Your task to perform on an android device: Is it going to rain tomorrow? Image 0: 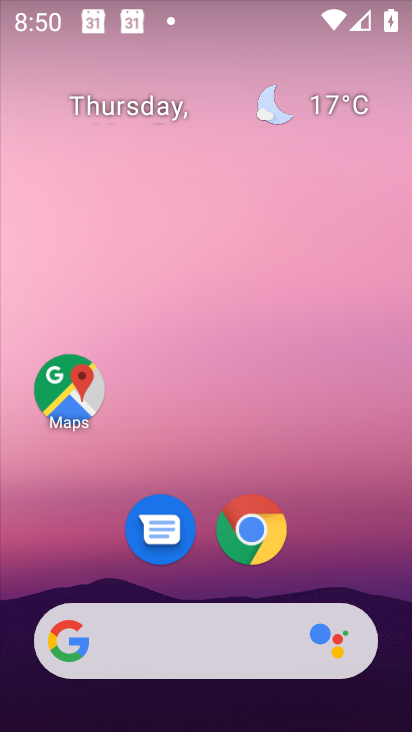
Step 0: click (303, 102)
Your task to perform on an android device: Is it going to rain tomorrow? Image 1: 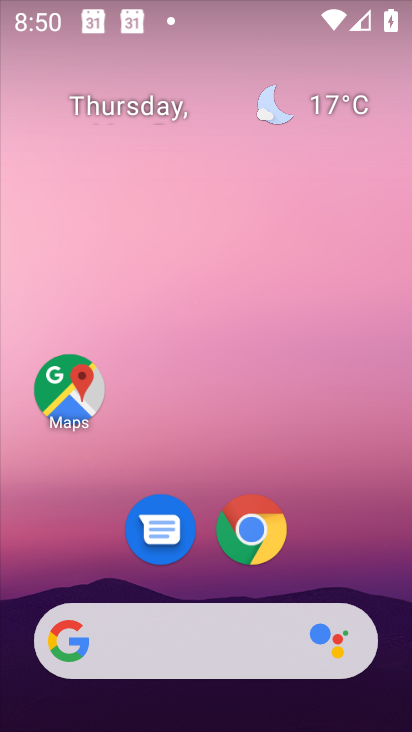
Step 1: click (268, 102)
Your task to perform on an android device: Is it going to rain tomorrow? Image 2: 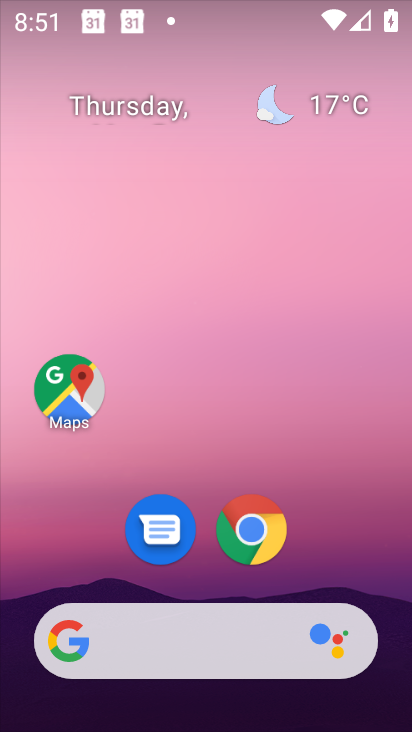
Step 2: click (340, 98)
Your task to perform on an android device: Is it going to rain tomorrow? Image 3: 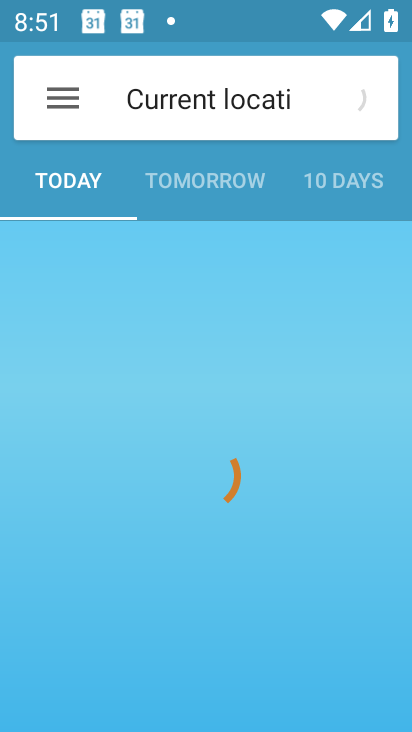
Step 3: click (329, 98)
Your task to perform on an android device: Is it going to rain tomorrow? Image 4: 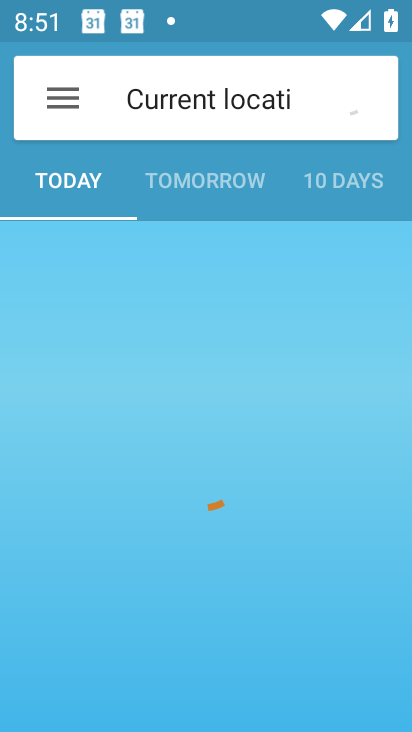
Step 4: click (329, 98)
Your task to perform on an android device: Is it going to rain tomorrow? Image 5: 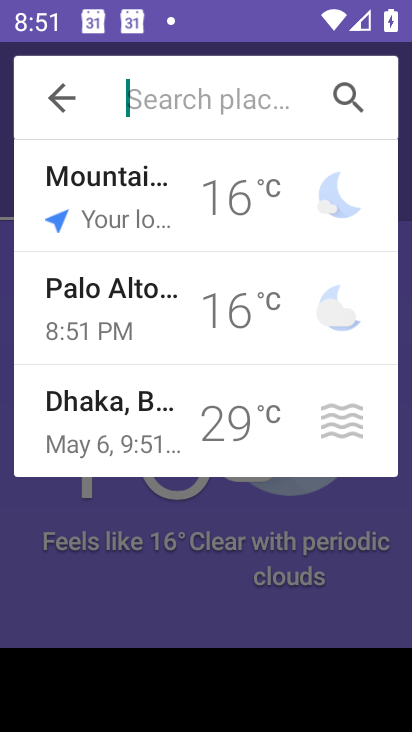
Step 5: click (52, 91)
Your task to perform on an android device: Is it going to rain tomorrow? Image 6: 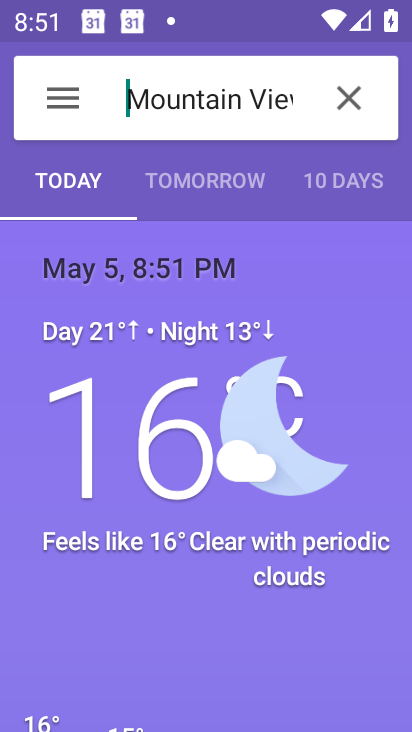
Step 6: click (173, 182)
Your task to perform on an android device: Is it going to rain tomorrow? Image 7: 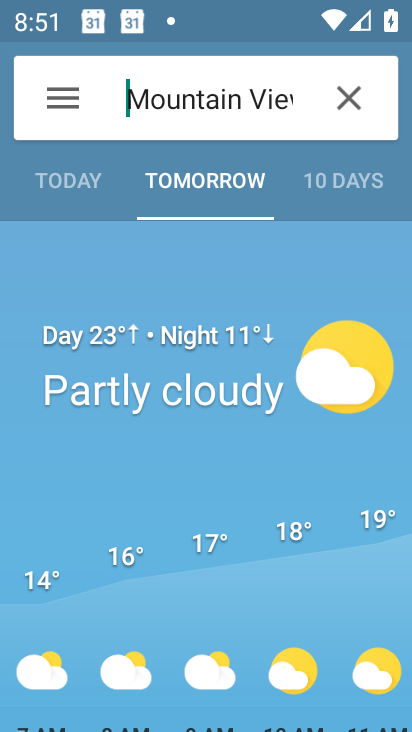
Step 7: task complete